Your task to perform on an android device: open the mobile data screen to see how much data has been used Image 0: 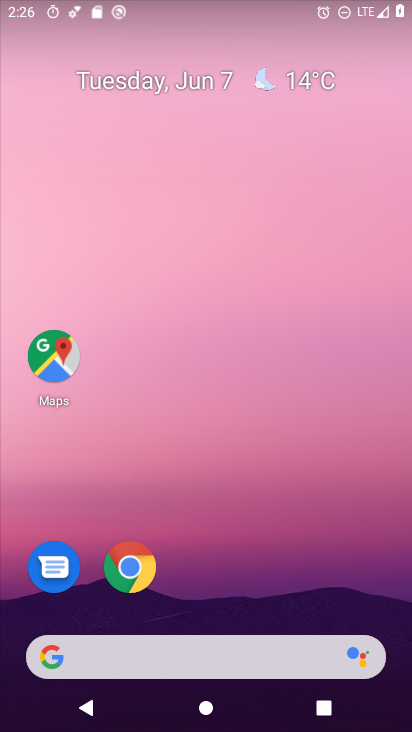
Step 0: drag from (260, 558) to (340, 39)
Your task to perform on an android device: open the mobile data screen to see how much data has been used Image 1: 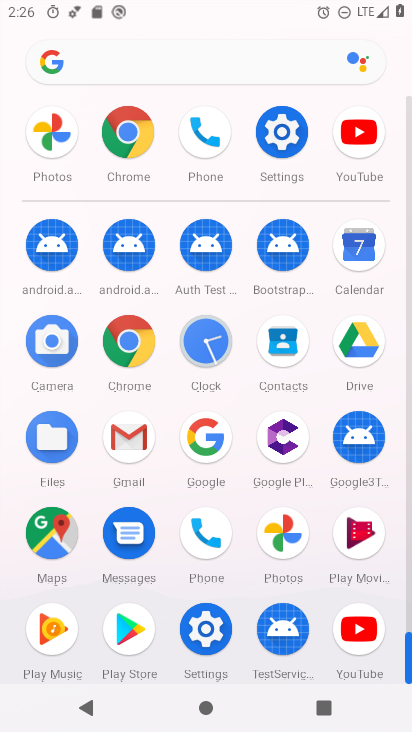
Step 1: click (276, 131)
Your task to perform on an android device: open the mobile data screen to see how much data has been used Image 2: 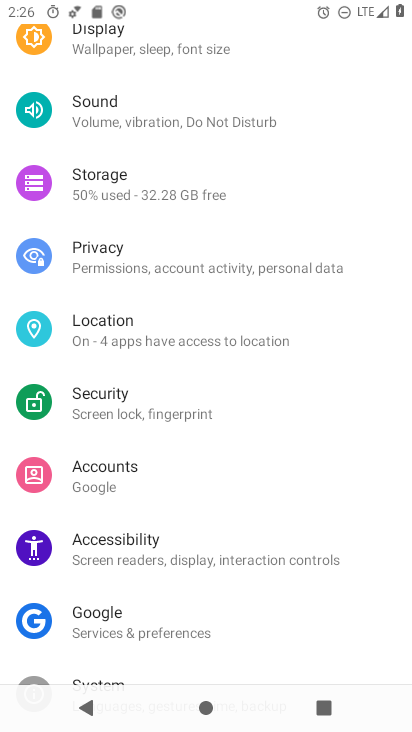
Step 2: drag from (275, 132) to (283, 673)
Your task to perform on an android device: open the mobile data screen to see how much data has been used Image 3: 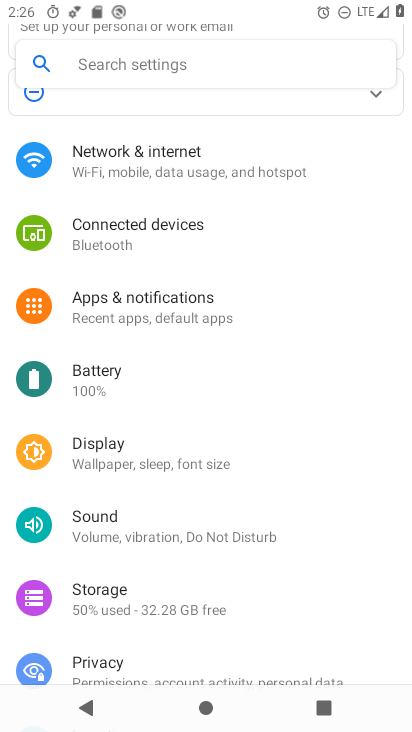
Step 3: drag from (196, 193) to (238, 661)
Your task to perform on an android device: open the mobile data screen to see how much data has been used Image 4: 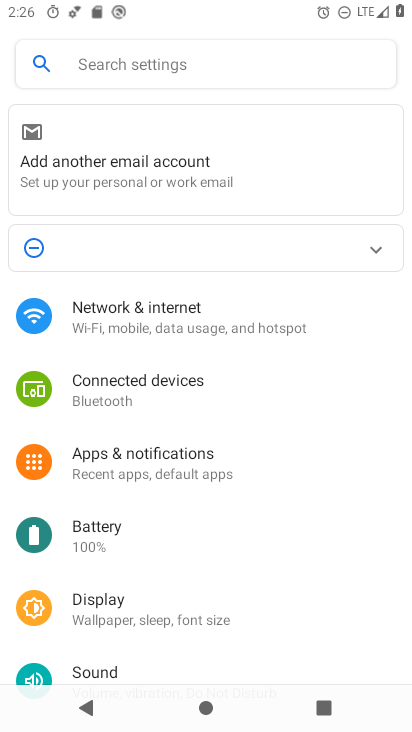
Step 4: click (133, 323)
Your task to perform on an android device: open the mobile data screen to see how much data has been used Image 5: 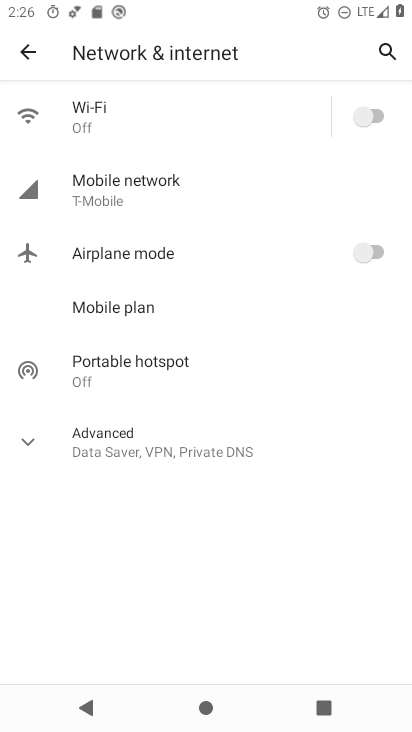
Step 5: click (114, 203)
Your task to perform on an android device: open the mobile data screen to see how much data has been used Image 6: 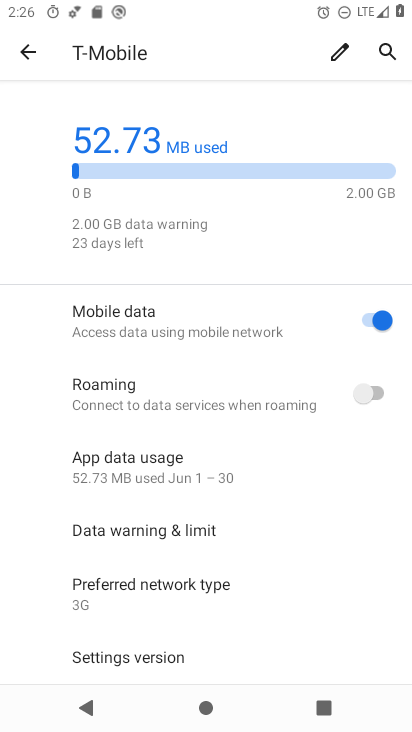
Step 6: task complete